Your task to perform on an android device: show emergency info Image 0: 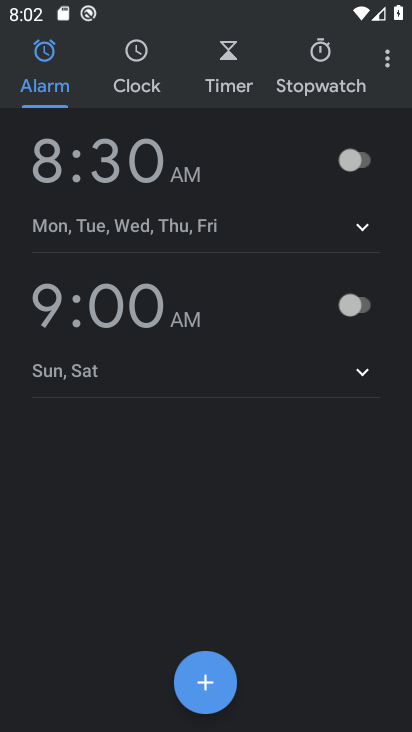
Step 0: press home button
Your task to perform on an android device: show emergency info Image 1: 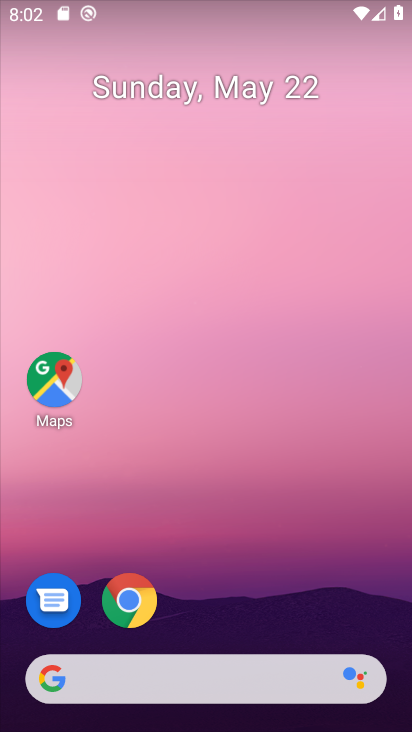
Step 1: drag from (152, 644) to (181, 381)
Your task to perform on an android device: show emergency info Image 2: 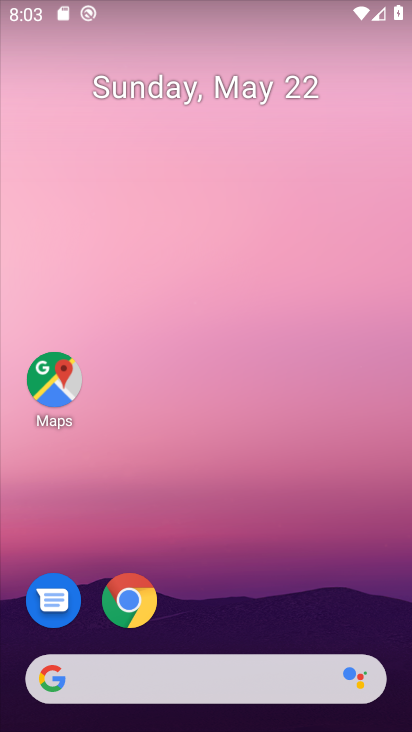
Step 2: drag from (178, 662) to (247, 381)
Your task to perform on an android device: show emergency info Image 3: 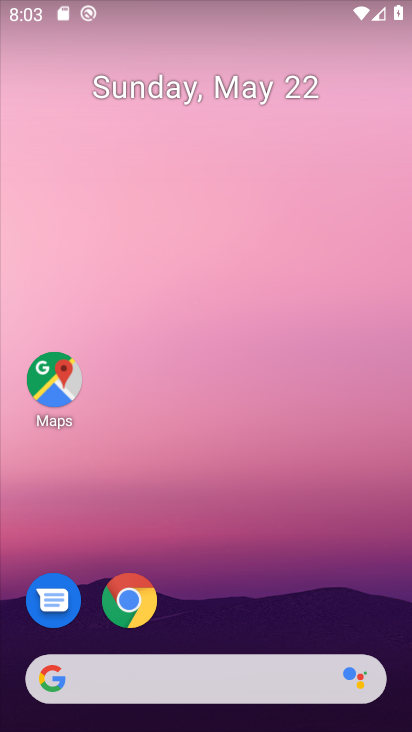
Step 3: drag from (214, 666) to (228, 317)
Your task to perform on an android device: show emergency info Image 4: 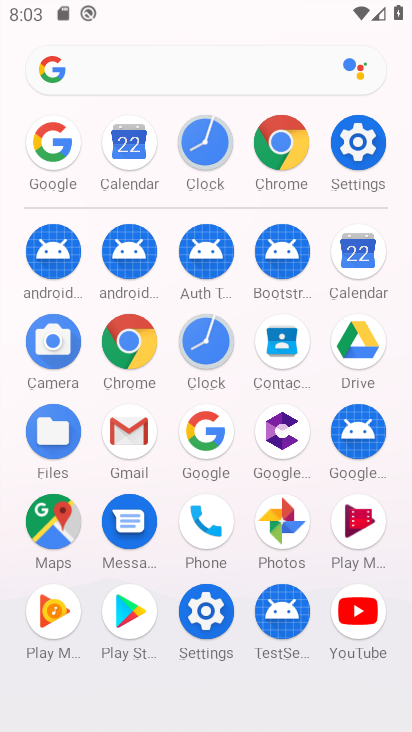
Step 4: click (362, 137)
Your task to perform on an android device: show emergency info Image 5: 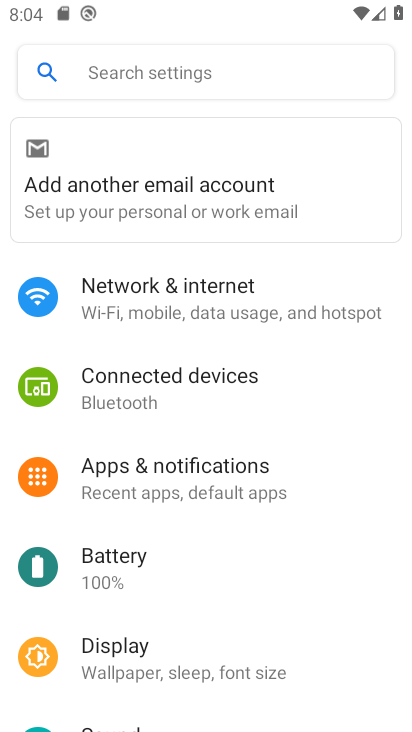
Step 5: drag from (185, 720) to (184, 425)
Your task to perform on an android device: show emergency info Image 6: 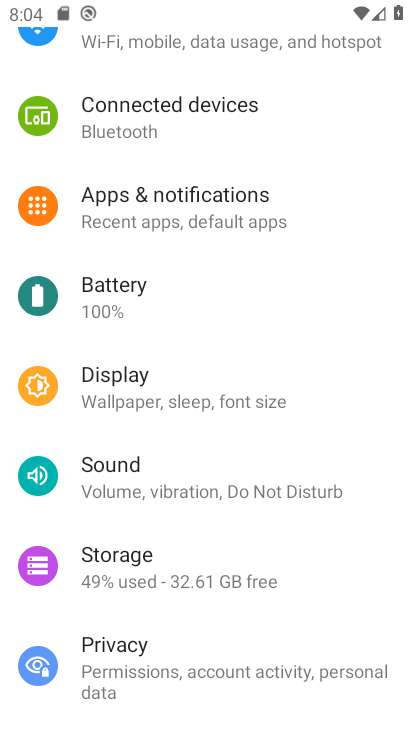
Step 6: drag from (125, 691) to (180, 317)
Your task to perform on an android device: show emergency info Image 7: 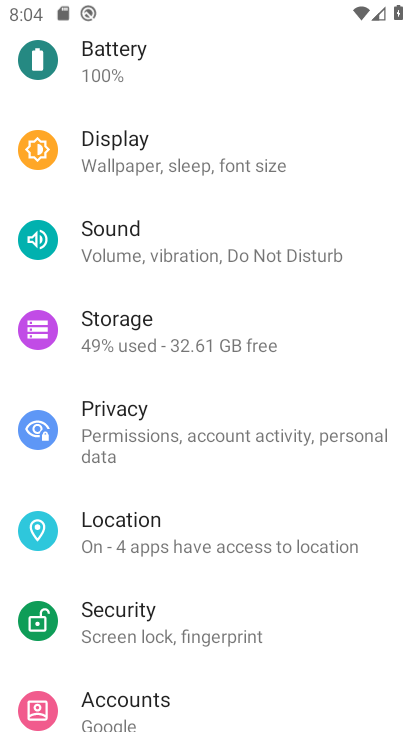
Step 7: drag from (229, 703) to (264, 416)
Your task to perform on an android device: show emergency info Image 8: 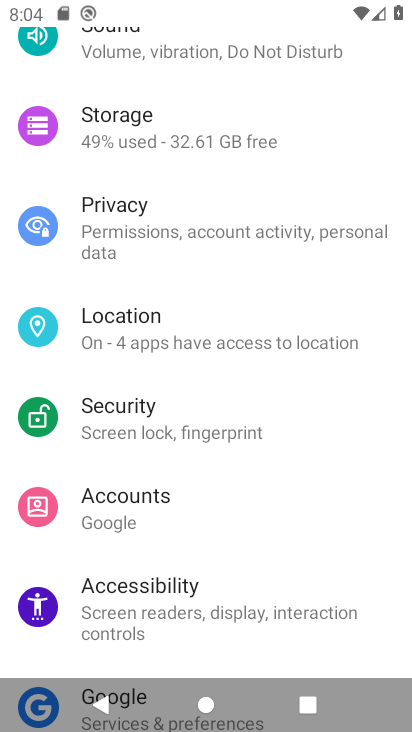
Step 8: drag from (222, 642) to (223, 430)
Your task to perform on an android device: show emergency info Image 9: 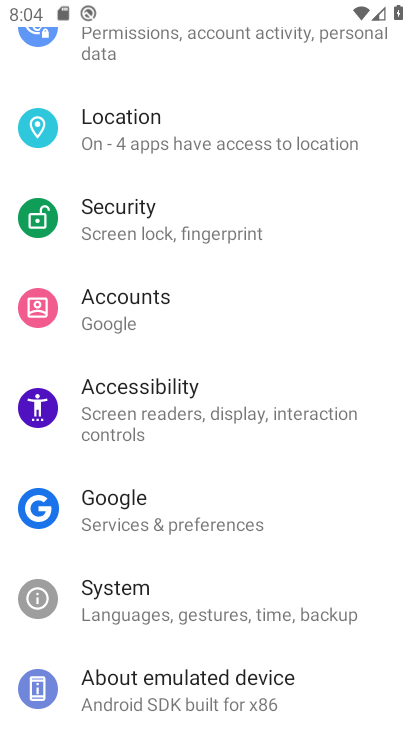
Step 9: click (178, 693)
Your task to perform on an android device: show emergency info Image 10: 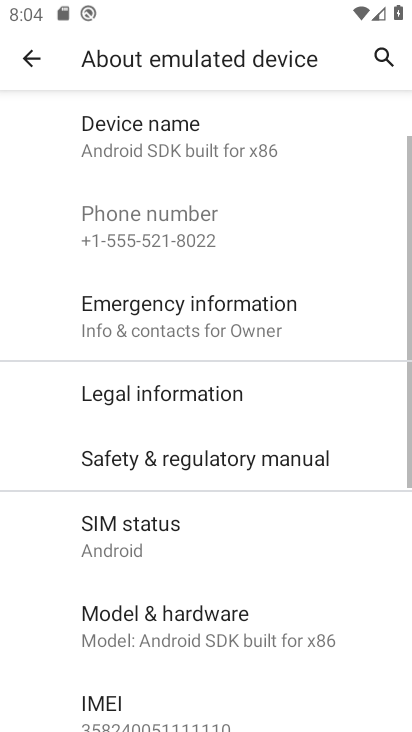
Step 10: click (234, 327)
Your task to perform on an android device: show emergency info Image 11: 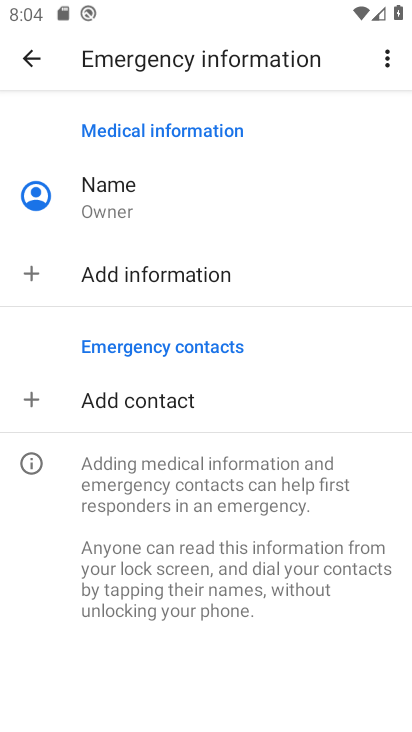
Step 11: task complete